Your task to perform on an android device: Open Amazon Image 0: 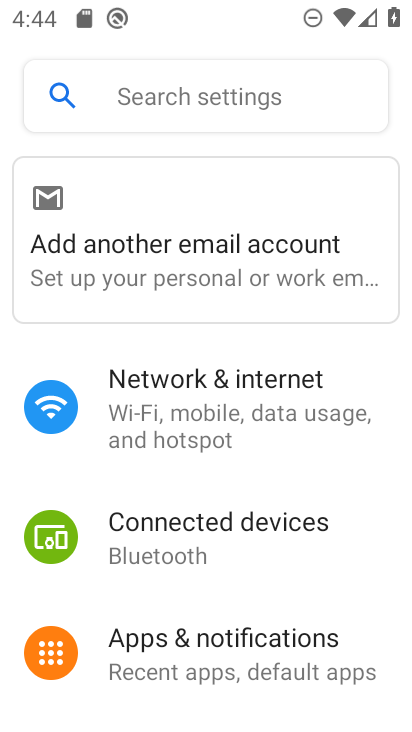
Step 0: press back button
Your task to perform on an android device: Open Amazon Image 1: 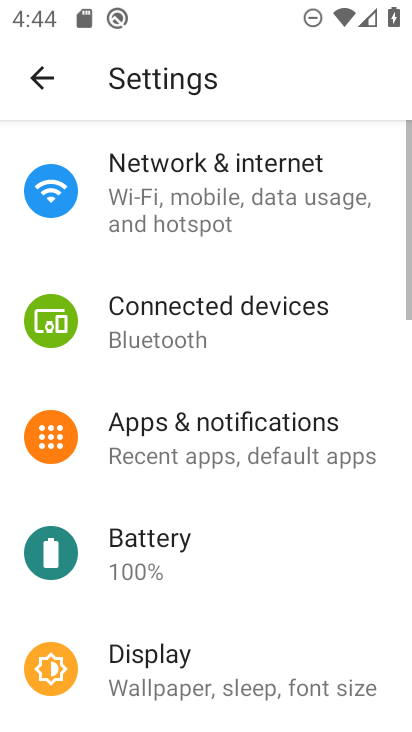
Step 1: press back button
Your task to perform on an android device: Open Amazon Image 2: 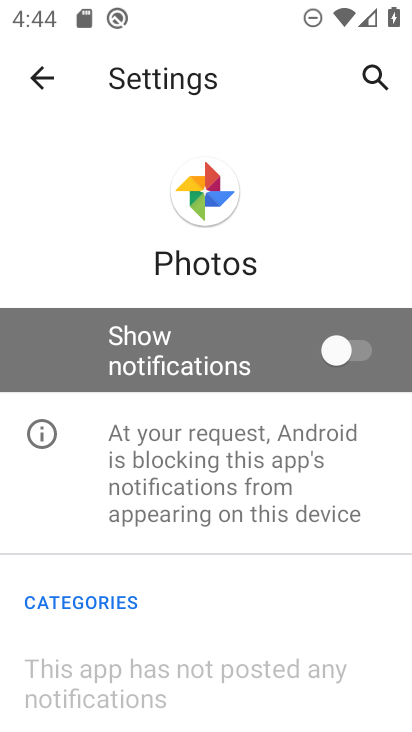
Step 2: press back button
Your task to perform on an android device: Open Amazon Image 3: 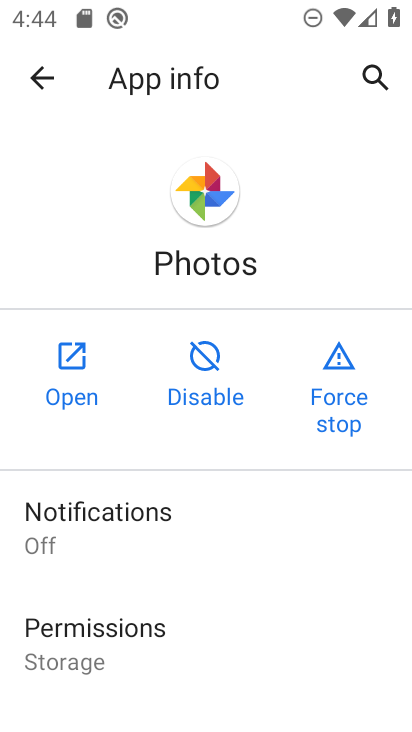
Step 3: press back button
Your task to perform on an android device: Open Amazon Image 4: 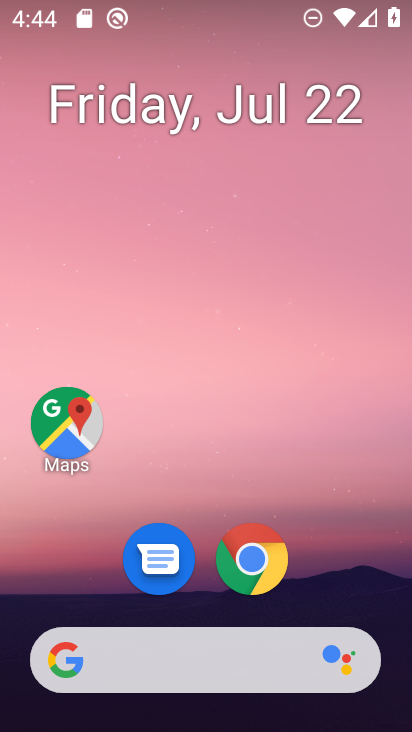
Step 4: click (259, 548)
Your task to perform on an android device: Open Amazon Image 5: 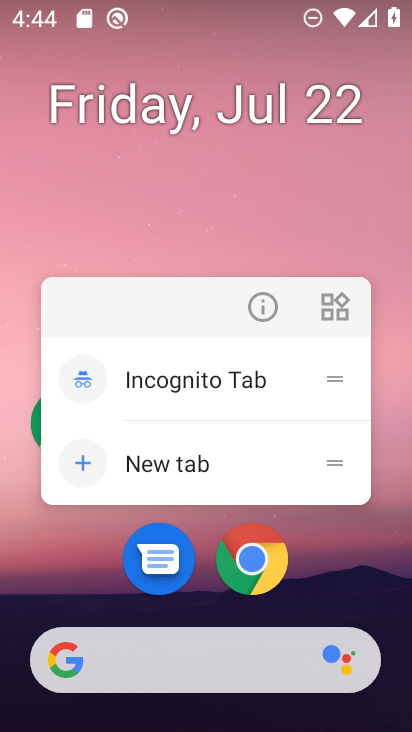
Step 5: click (259, 548)
Your task to perform on an android device: Open Amazon Image 6: 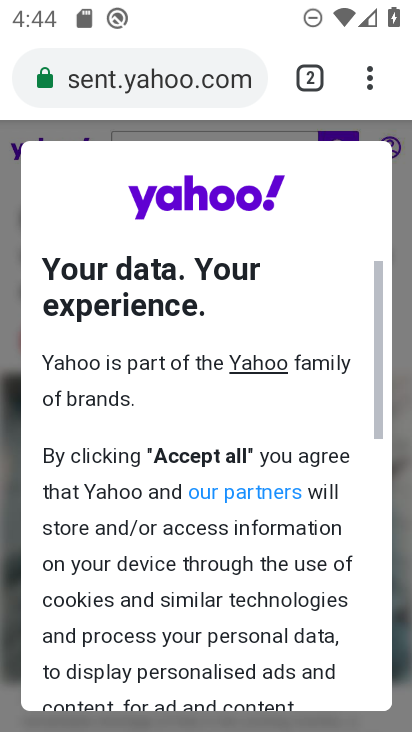
Step 6: click (316, 68)
Your task to perform on an android device: Open Amazon Image 7: 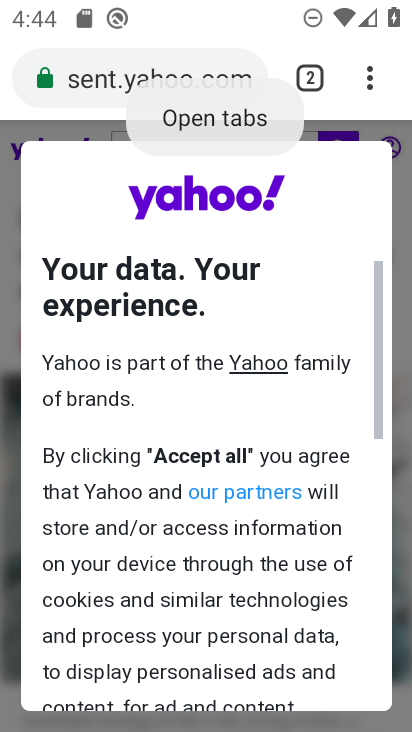
Step 7: click (312, 76)
Your task to perform on an android device: Open Amazon Image 8: 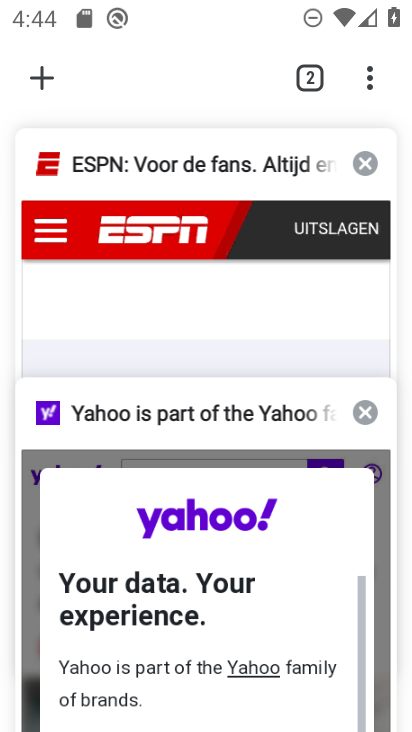
Step 8: click (37, 73)
Your task to perform on an android device: Open Amazon Image 9: 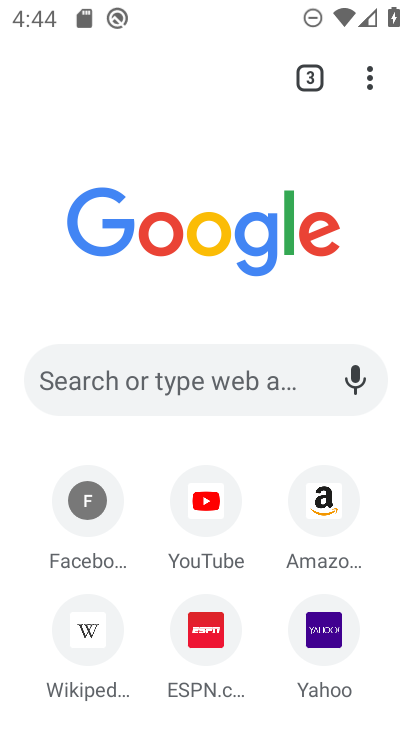
Step 9: click (324, 536)
Your task to perform on an android device: Open Amazon Image 10: 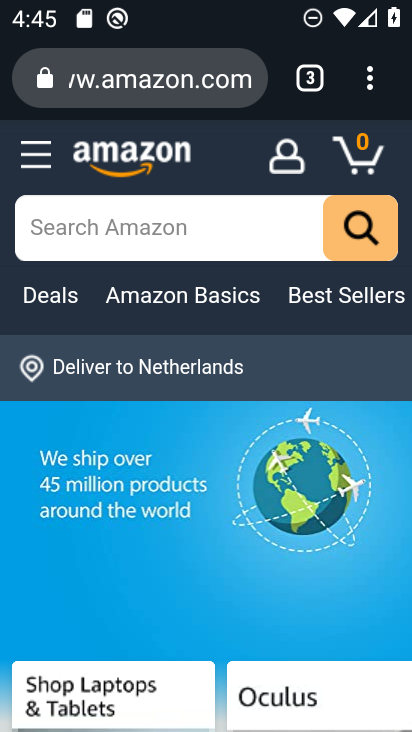
Step 10: task complete